Your task to perform on an android device: turn on data saver in the chrome app Image 0: 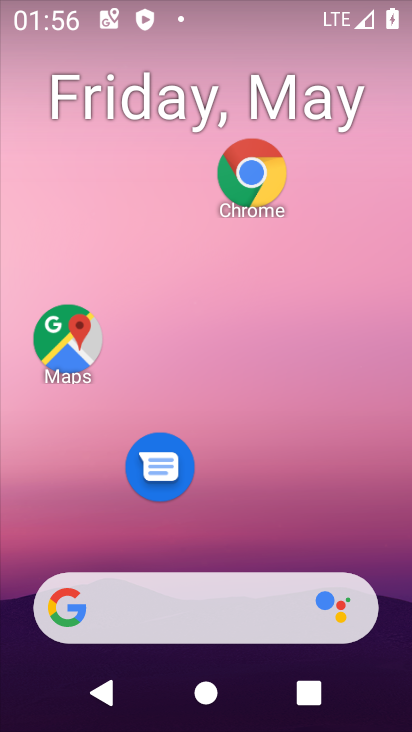
Step 0: drag from (309, 555) to (355, 182)
Your task to perform on an android device: turn on data saver in the chrome app Image 1: 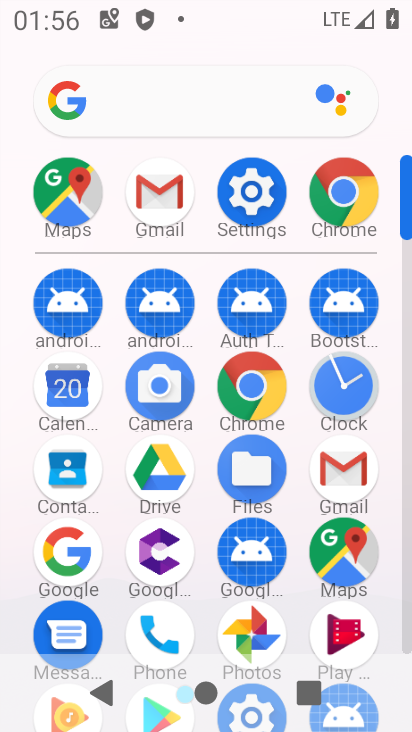
Step 1: click (328, 208)
Your task to perform on an android device: turn on data saver in the chrome app Image 2: 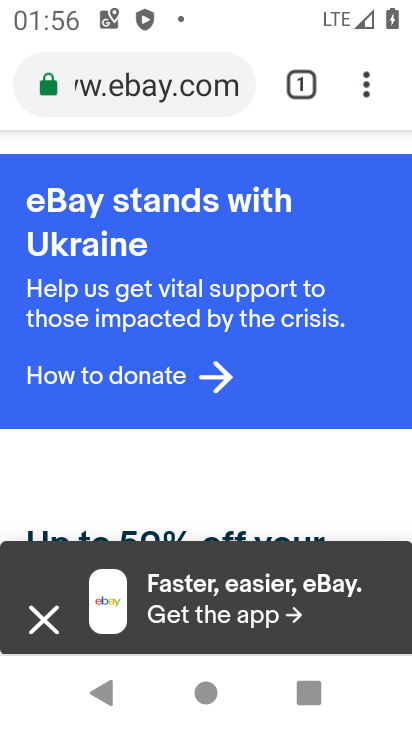
Step 2: click (360, 103)
Your task to perform on an android device: turn on data saver in the chrome app Image 3: 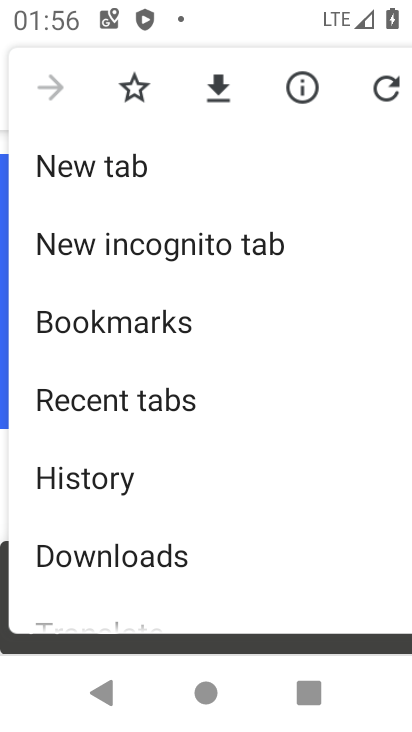
Step 3: drag from (169, 518) to (229, 313)
Your task to perform on an android device: turn on data saver in the chrome app Image 4: 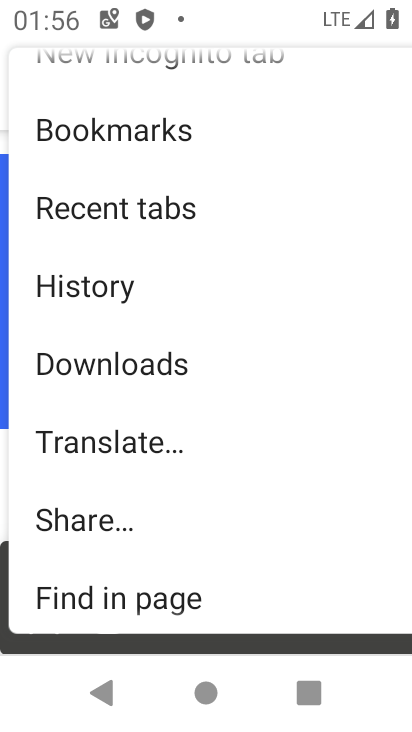
Step 4: drag from (160, 529) to (201, 311)
Your task to perform on an android device: turn on data saver in the chrome app Image 5: 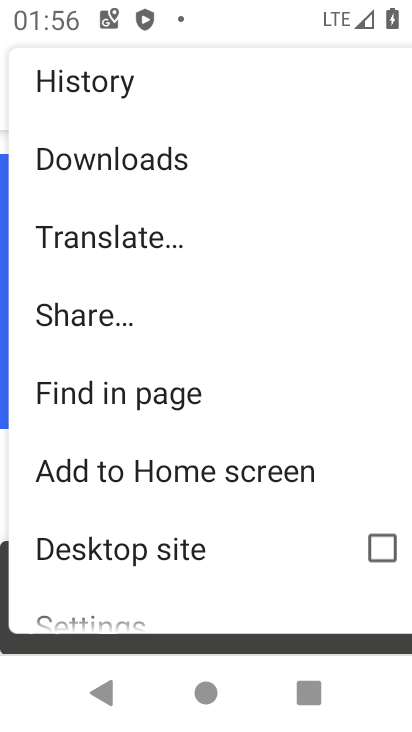
Step 5: drag from (106, 604) to (109, 520)
Your task to perform on an android device: turn on data saver in the chrome app Image 6: 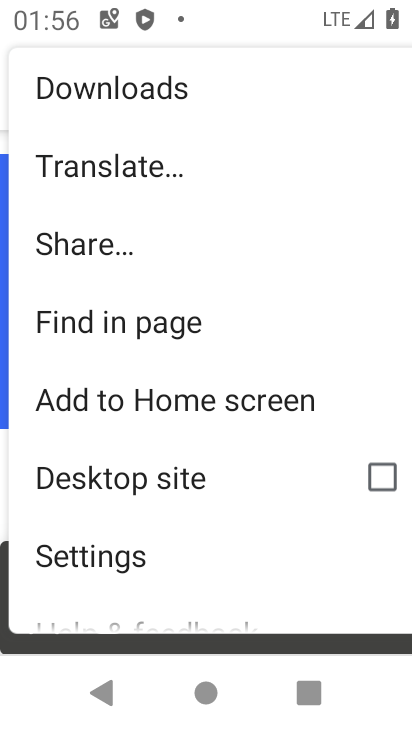
Step 6: click (88, 560)
Your task to perform on an android device: turn on data saver in the chrome app Image 7: 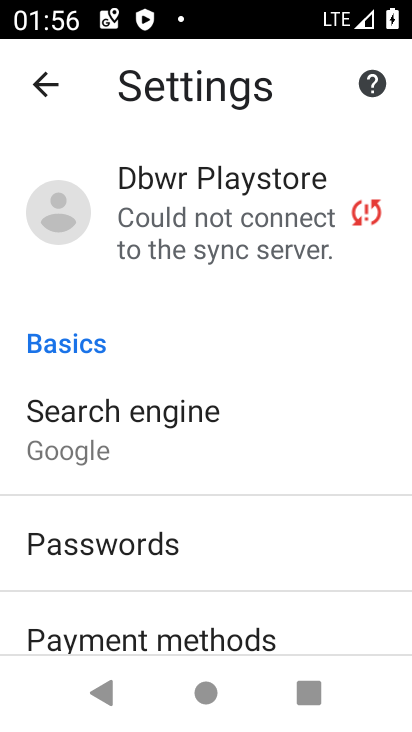
Step 7: drag from (92, 556) to (216, 387)
Your task to perform on an android device: turn on data saver in the chrome app Image 8: 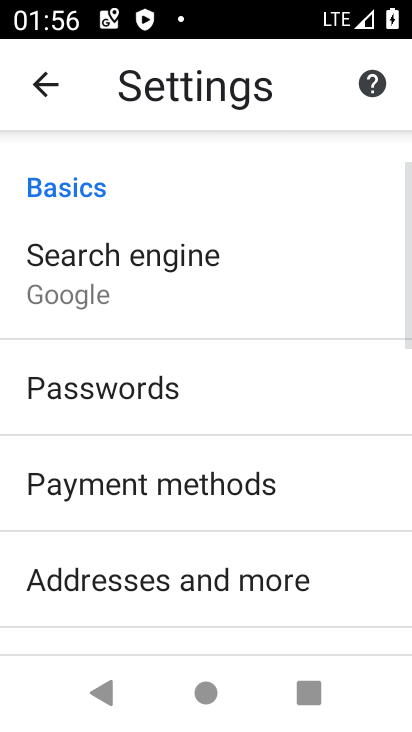
Step 8: drag from (179, 447) to (155, 307)
Your task to perform on an android device: turn on data saver in the chrome app Image 9: 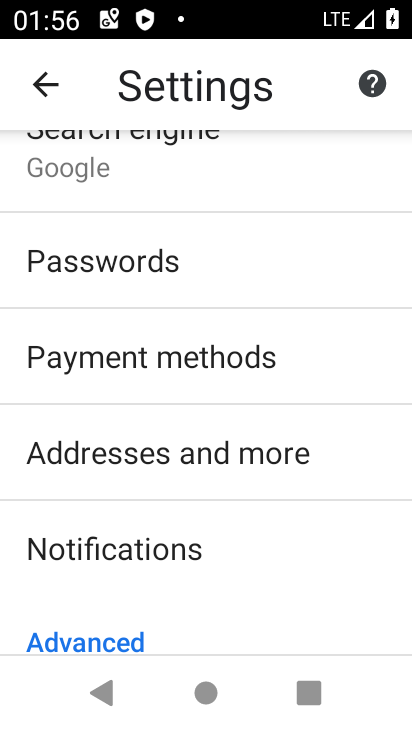
Step 9: drag from (150, 451) to (220, 245)
Your task to perform on an android device: turn on data saver in the chrome app Image 10: 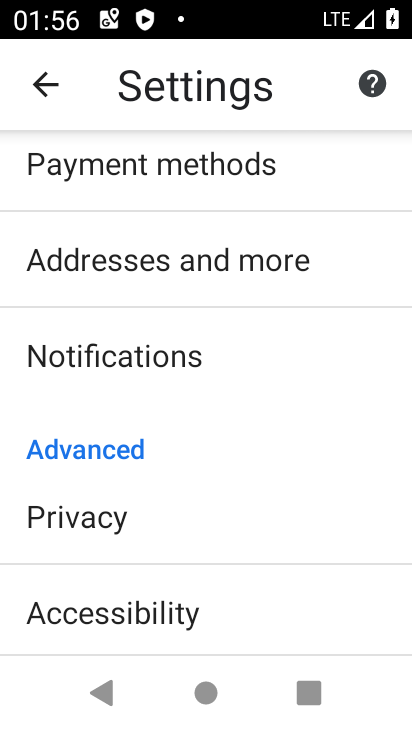
Step 10: drag from (192, 482) to (216, 299)
Your task to perform on an android device: turn on data saver in the chrome app Image 11: 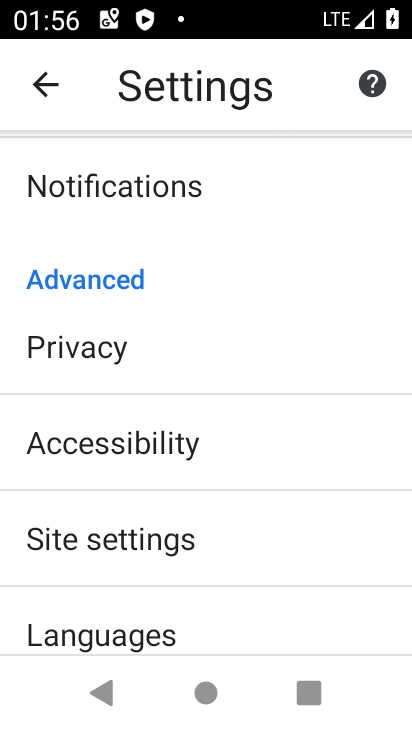
Step 11: drag from (160, 557) to (203, 303)
Your task to perform on an android device: turn on data saver in the chrome app Image 12: 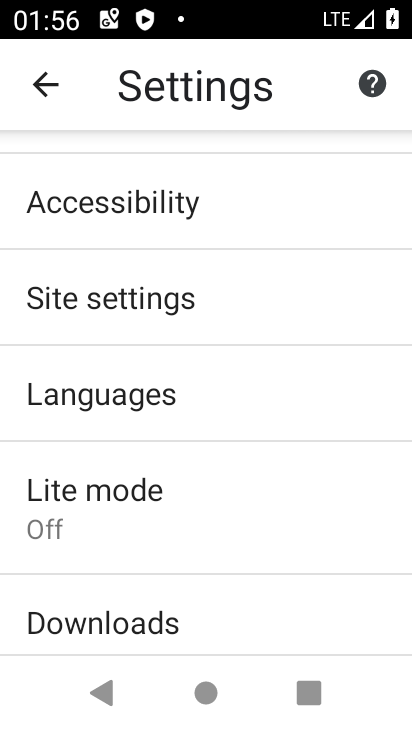
Step 12: click (120, 521)
Your task to perform on an android device: turn on data saver in the chrome app Image 13: 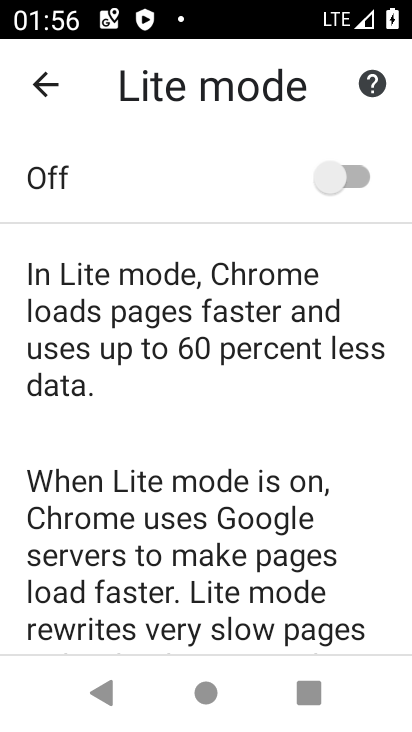
Step 13: click (349, 184)
Your task to perform on an android device: turn on data saver in the chrome app Image 14: 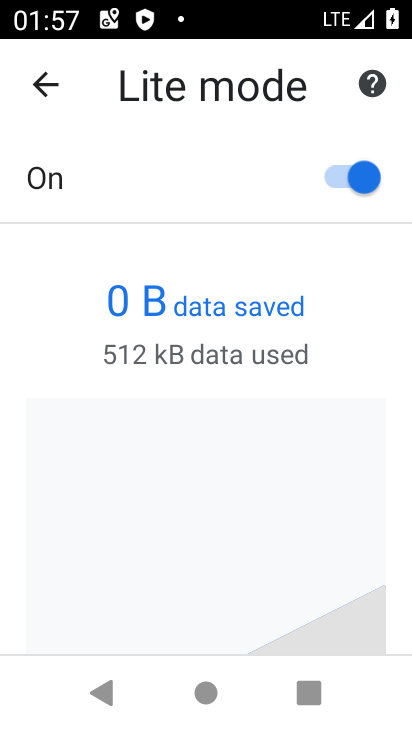
Step 14: task complete